Your task to perform on an android device: Open Wikipedia Image 0: 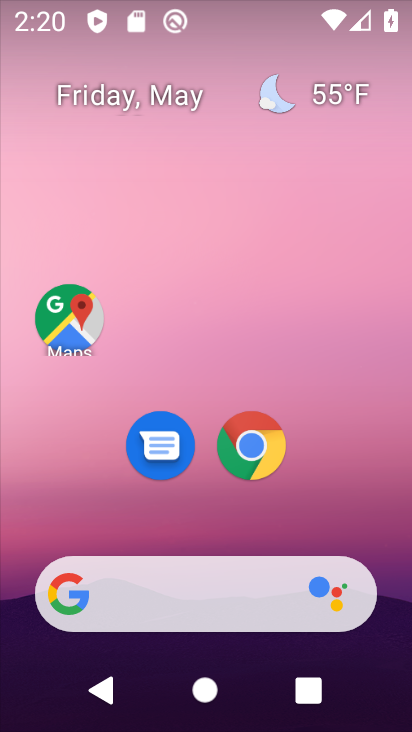
Step 0: drag from (316, 511) to (317, 104)
Your task to perform on an android device: Open Wikipedia Image 1: 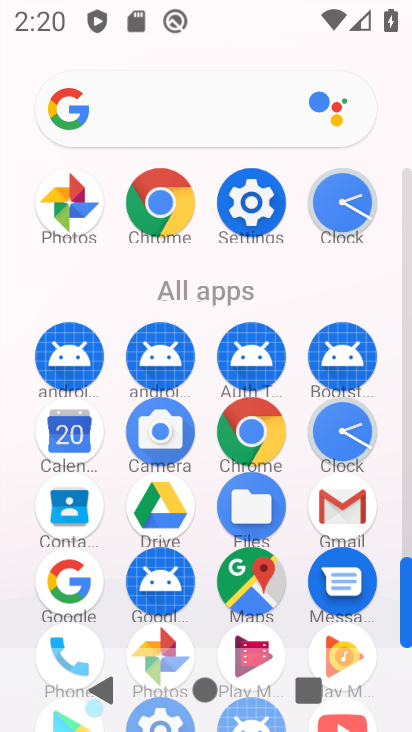
Step 1: click (258, 434)
Your task to perform on an android device: Open Wikipedia Image 2: 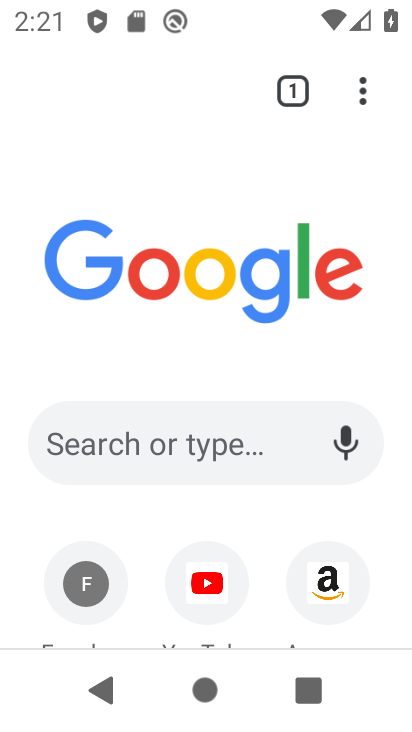
Step 2: drag from (154, 545) to (167, 256)
Your task to perform on an android device: Open Wikipedia Image 3: 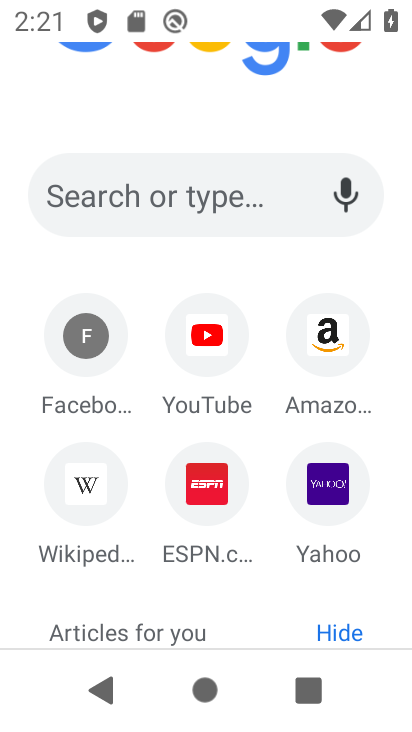
Step 3: click (111, 485)
Your task to perform on an android device: Open Wikipedia Image 4: 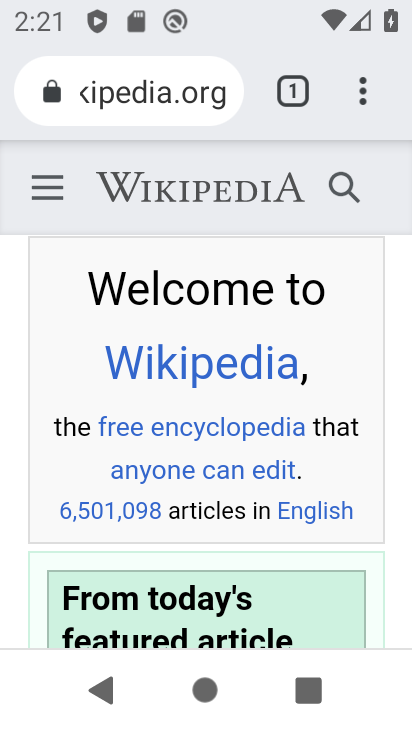
Step 4: task complete